Your task to perform on an android device: Do I have any events this weekend? Image 0: 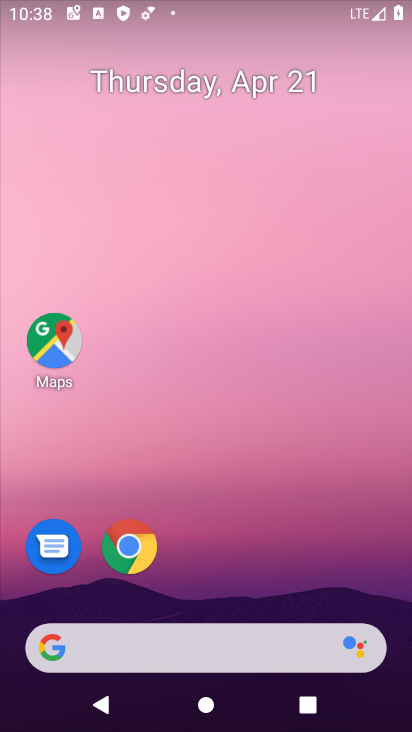
Step 0: drag from (381, 606) to (303, 154)
Your task to perform on an android device: Do I have any events this weekend? Image 1: 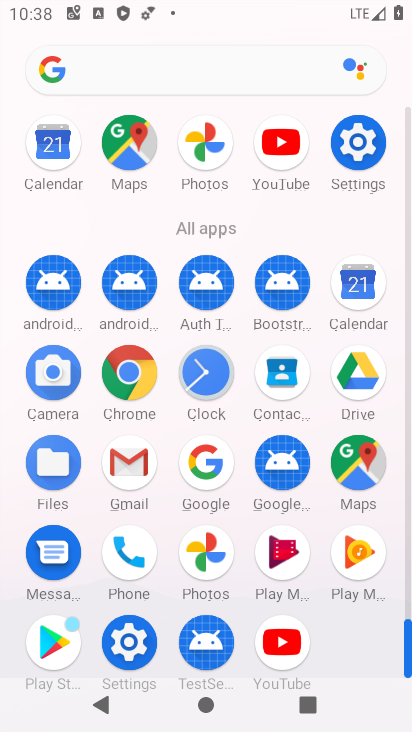
Step 1: click (357, 288)
Your task to perform on an android device: Do I have any events this weekend? Image 2: 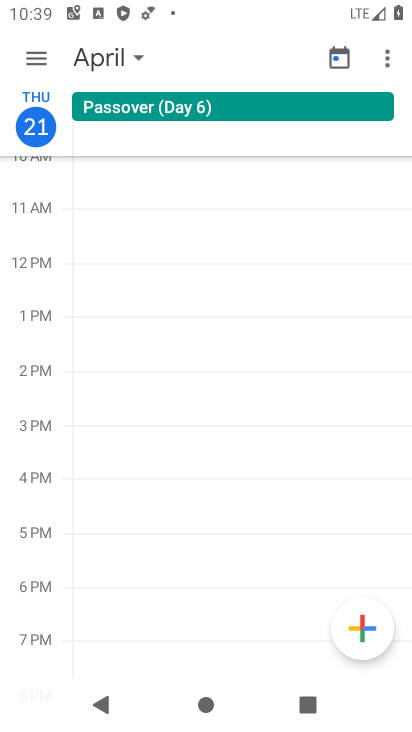
Step 2: click (31, 52)
Your task to perform on an android device: Do I have any events this weekend? Image 3: 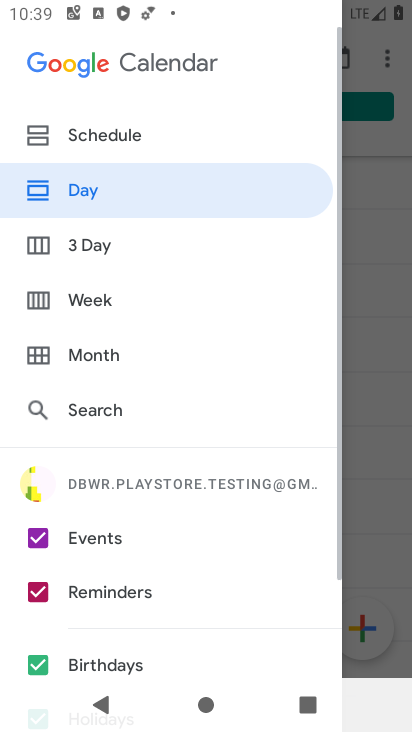
Step 3: click (76, 295)
Your task to perform on an android device: Do I have any events this weekend? Image 4: 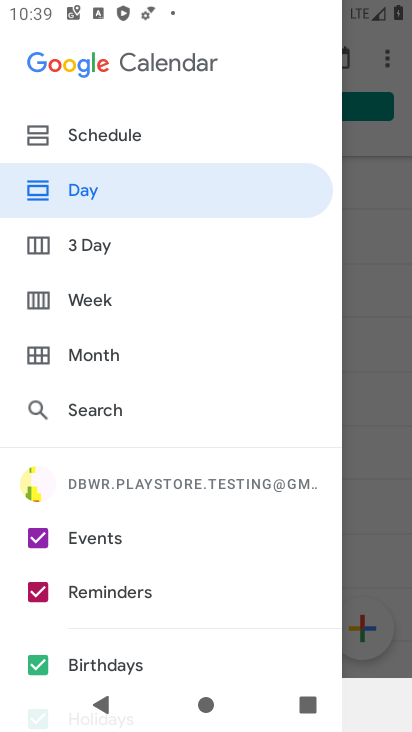
Step 4: click (111, 300)
Your task to perform on an android device: Do I have any events this weekend? Image 5: 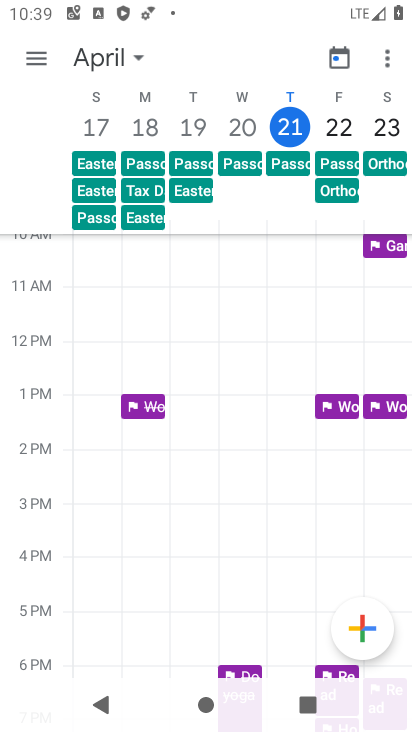
Step 5: task complete